Your task to perform on an android device: Open Android settings Image 0: 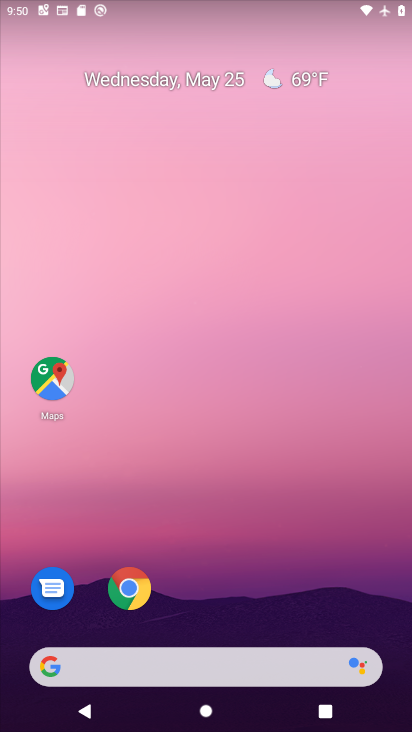
Step 0: drag from (374, 606) to (383, 145)
Your task to perform on an android device: Open Android settings Image 1: 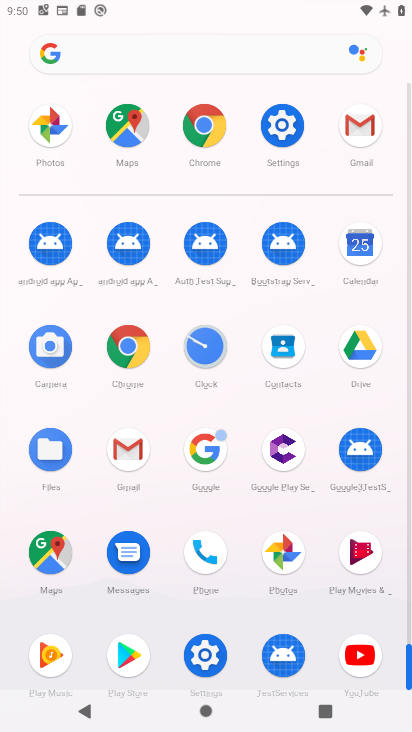
Step 1: click (294, 134)
Your task to perform on an android device: Open Android settings Image 2: 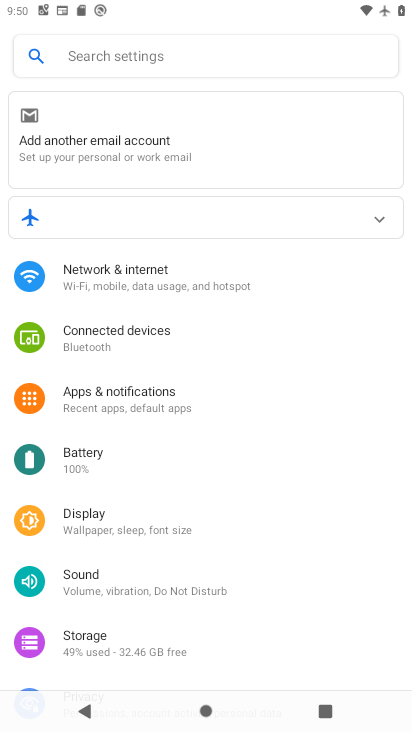
Step 2: drag from (366, 631) to (372, 526)
Your task to perform on an android device: Open Android settings Image 3: 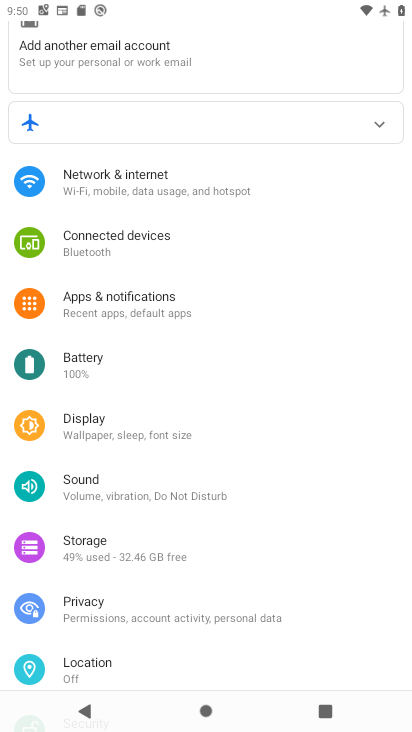
Step 3: drag from (377, 615) to (362, 474)
Your task to perform on an android device: Open Android settings Image 4: 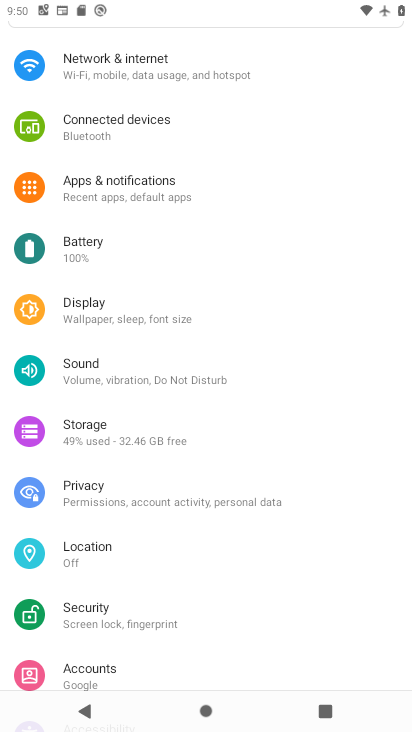
Step 4: drag from (372, 607) to (380, 473)
Your task to perform on an android device: Open Android settings Image 5: 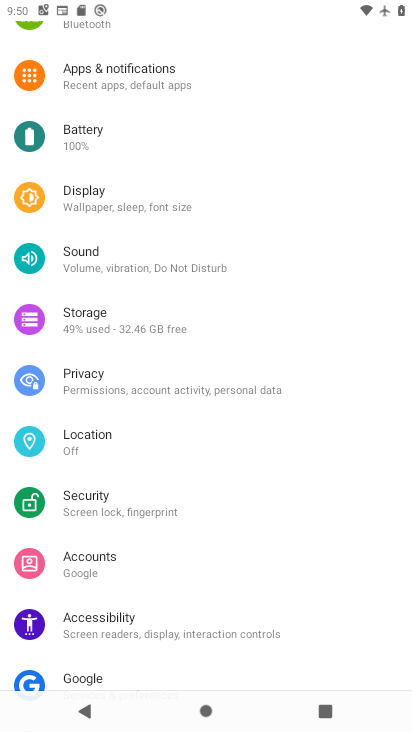
Step 5: drag from (366, 599) to (381, 463)
Your task to perform on an android device: Open Android settings Image 6: 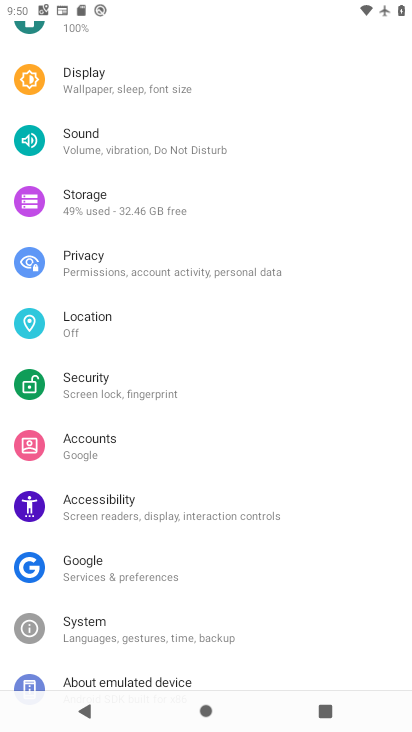
Step 6: drag from (371, 618) to (382, 478)
Your task to perform on an android device: Open Android settings Image 7: 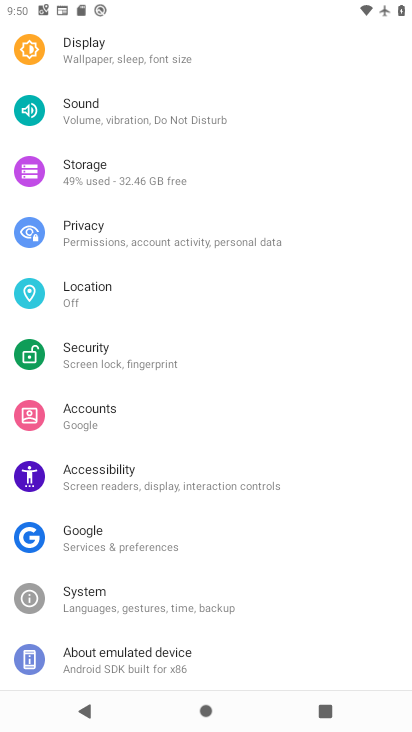
Step 7: click (217, 604)
Your task to perform on an android device: Open Android settings Image 8: 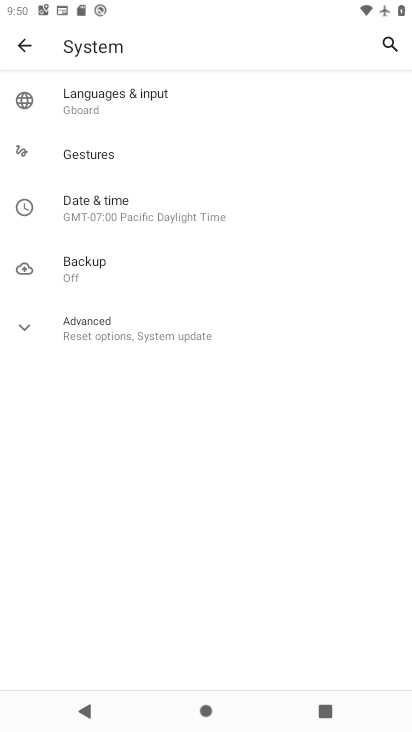
Step 8: click (209, 337)
Your task to perform on an android device: Open Android settings Image 9: 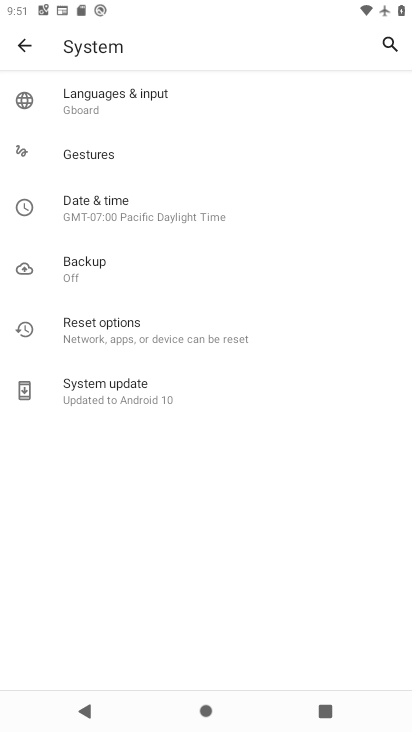
Step 9: task complete